Your task to perform on an android device: Add razer kraken to the cart on ebay.com, then select checkout. Image 0: 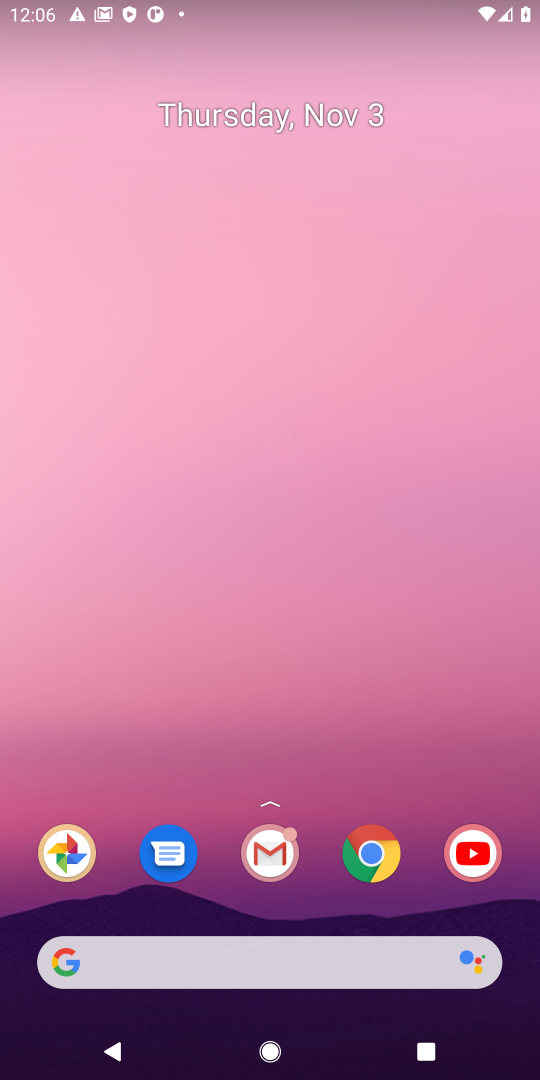
Step 0: click (371, 858)
Your task to perform on an android device: Add razer kraken to the cart on ebay.com, then select checkout. Image 1: 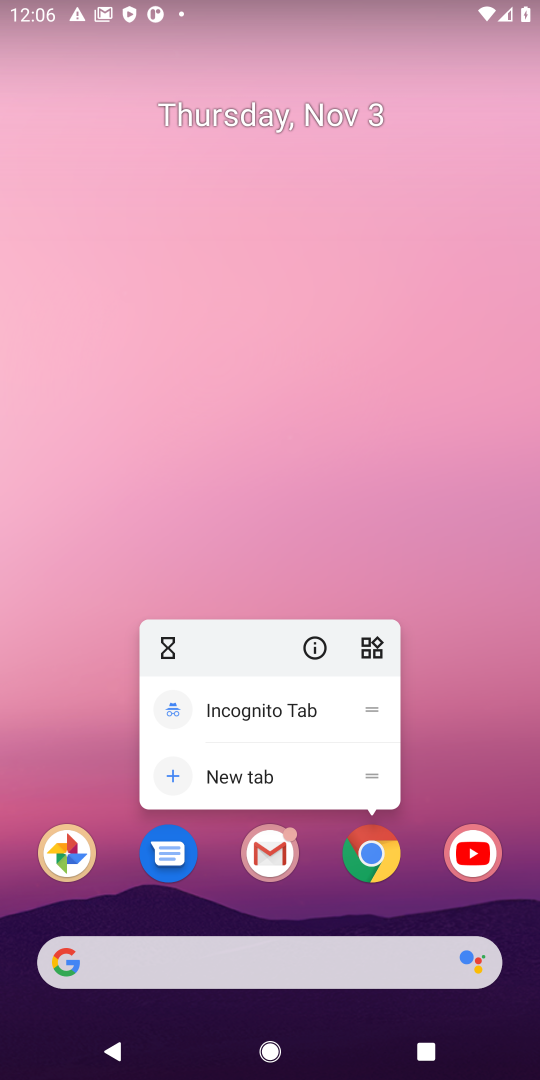
Step 1: click (371, 860)
Your task to perform on an android device: Add razer kraken to the cart on ebay.com, then select checkout. Image 2: 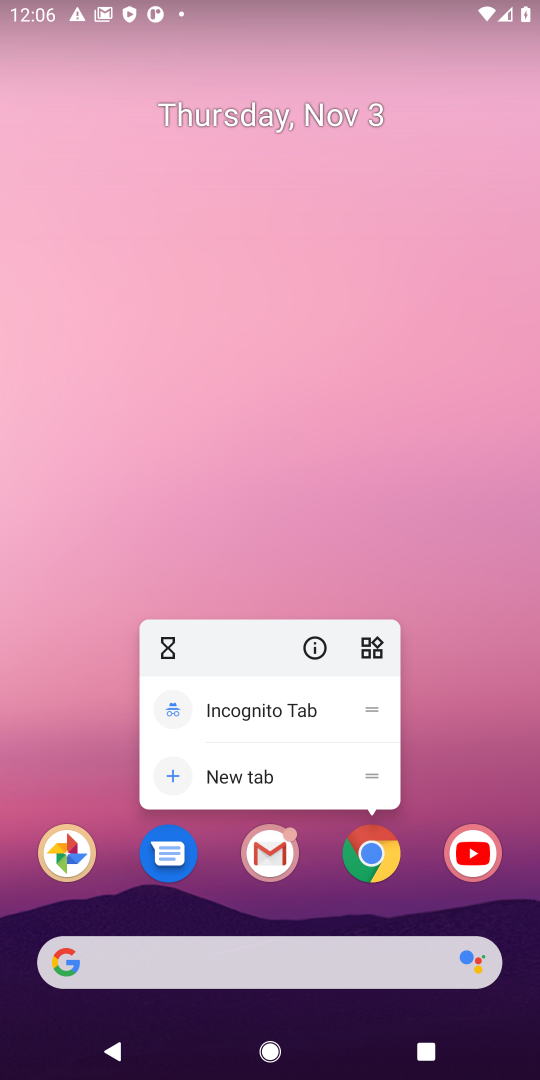
Step 2: click (366, 858)
Your task to perform on an android device: Add razer kraken to the cart on ebay.com, then select checkout. Image 3: 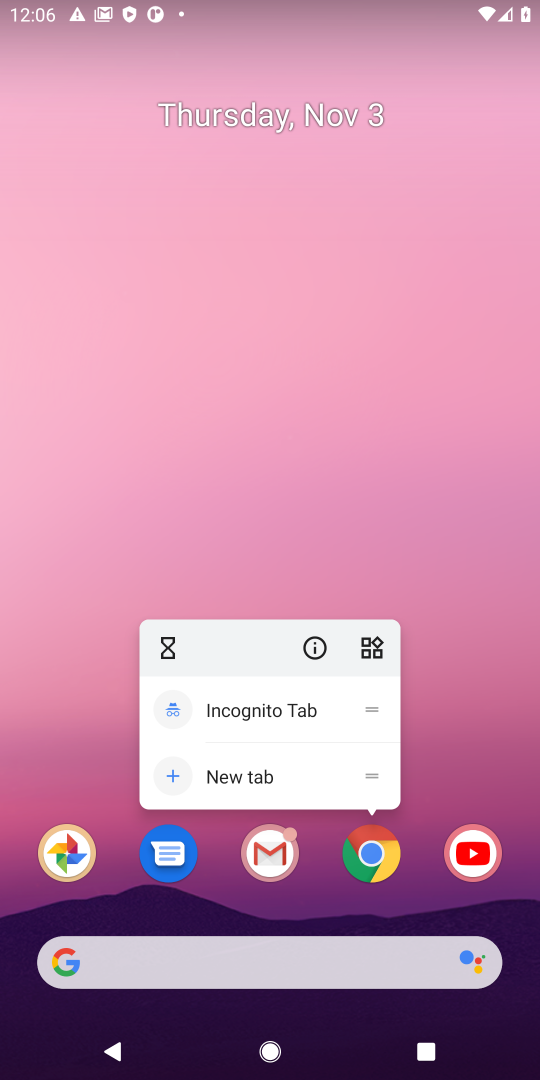
Step 3: click (368, 852)
Your task to perform on an android device: Add razer kraken to the cart on ebay.com, then select checkout. Image 4: 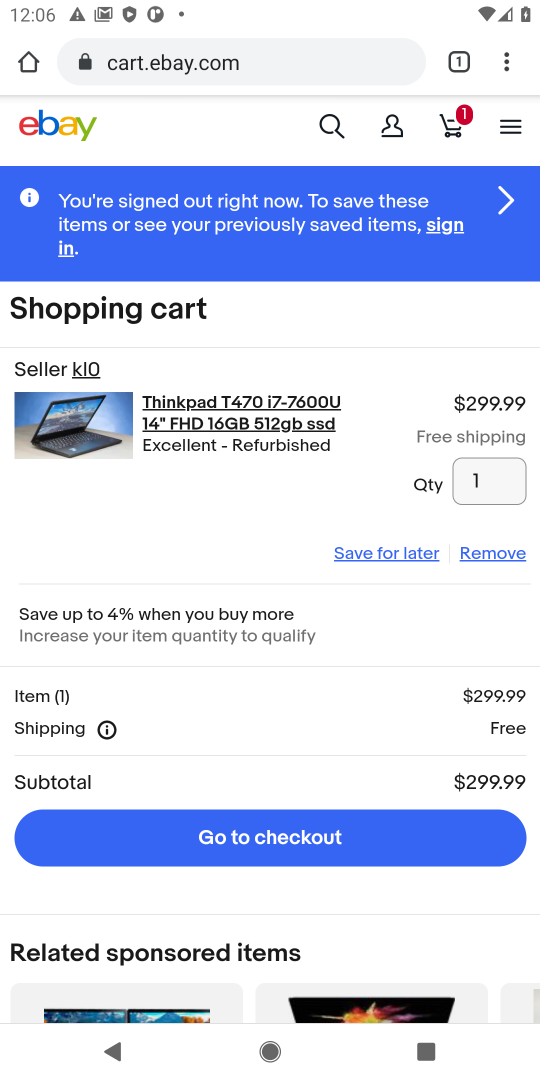
Step 4: click (323, 125)
Your task to perform on an android device: Add razer kraken to the cart on ebay.com, then select checkout. Image 5: 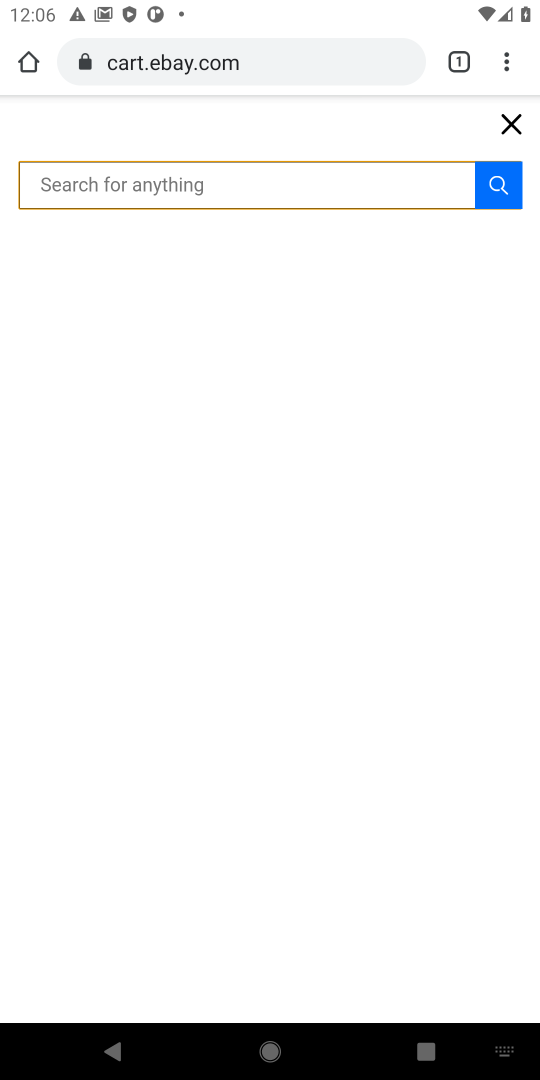
Step 5: click (150, 173)
Your task to perform on an android device: Add razer kraken to the cart on ebay.com, then select checkout. Image 6: 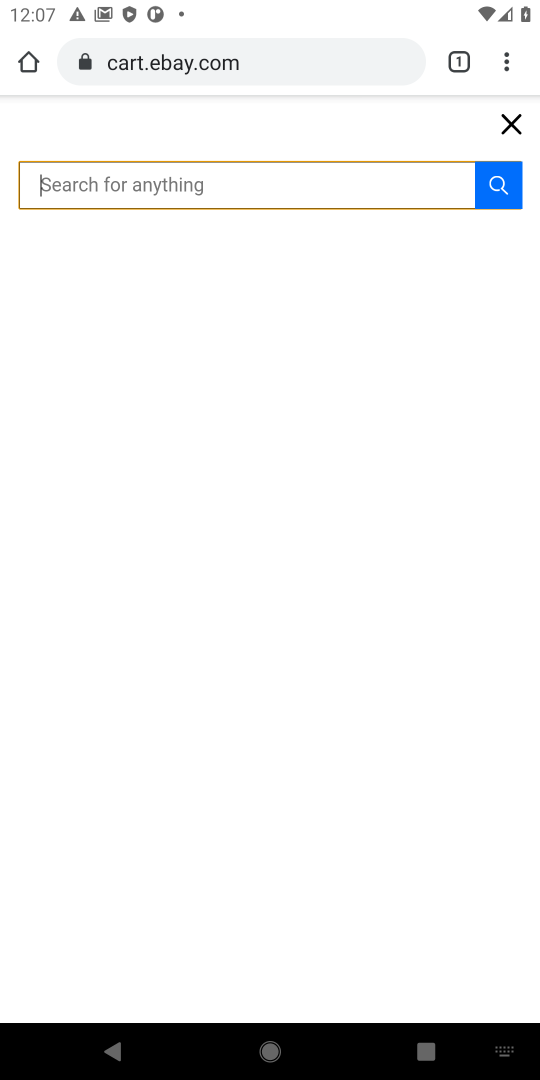
Step 6: type "razer kraken"
Your task to perform on an android device: Add razer kraken to the cart on ebay.com, then select checkout. Image 7: 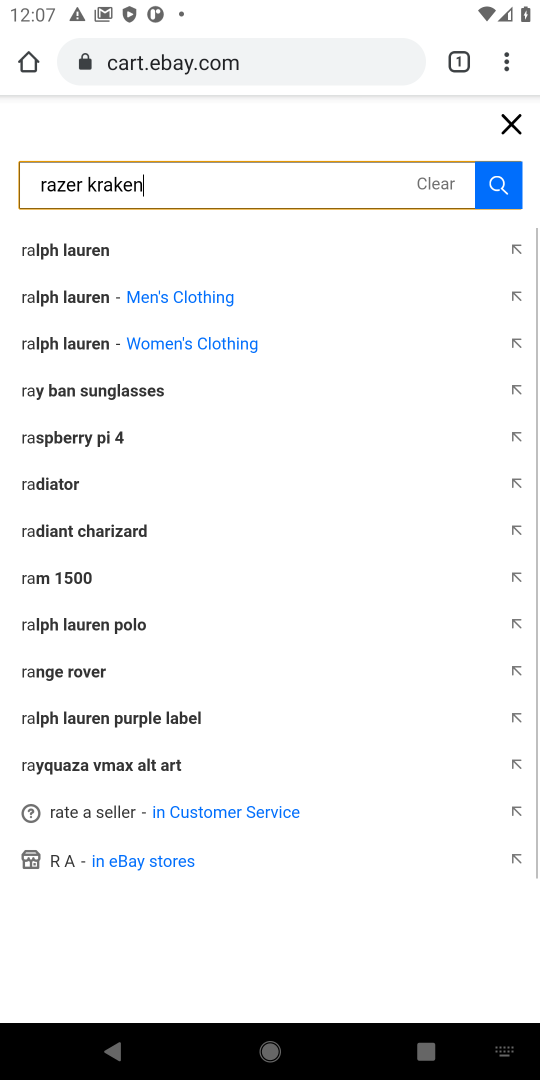
Step 7: press enter
Your task to perform on an android device: Add razer kraken to the cart on ebay.com, then select checkout. Image 8: 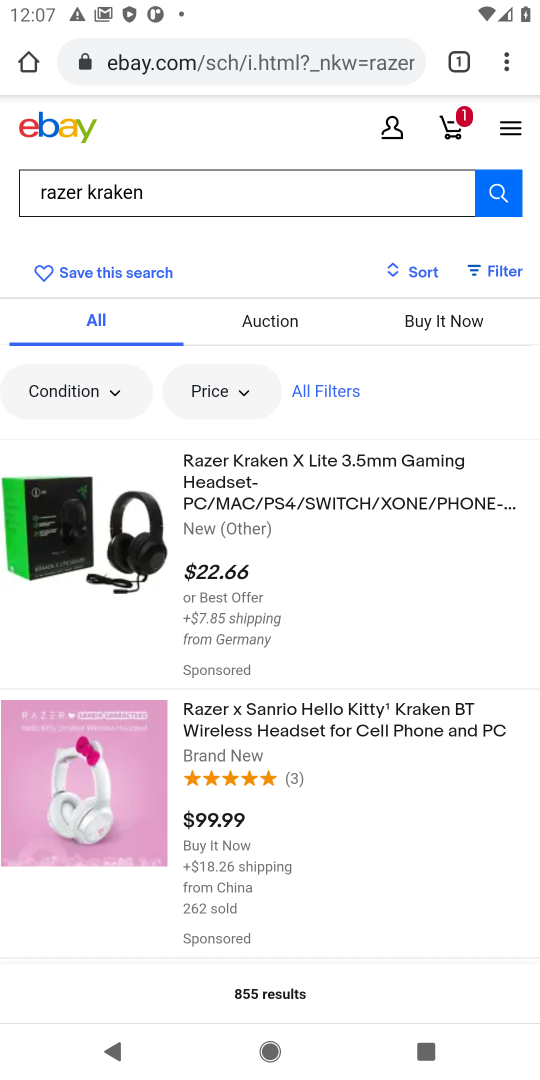
Step 8: click (320, 544)
Your task to perform on an android device: Add razer kraken to the cart on ebay.com, then select checkout. Image 9: 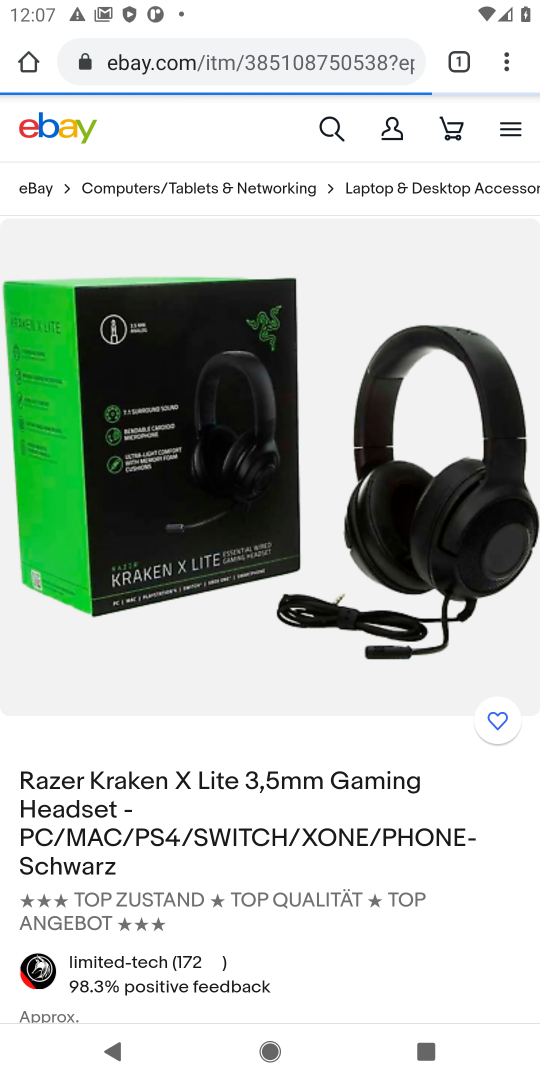
Step 9: drag from (156, 878) to (258, 345)
Your task to perform on an android device: Add razer kraken to the cart on ebay.com, then select checkout. Image 10: 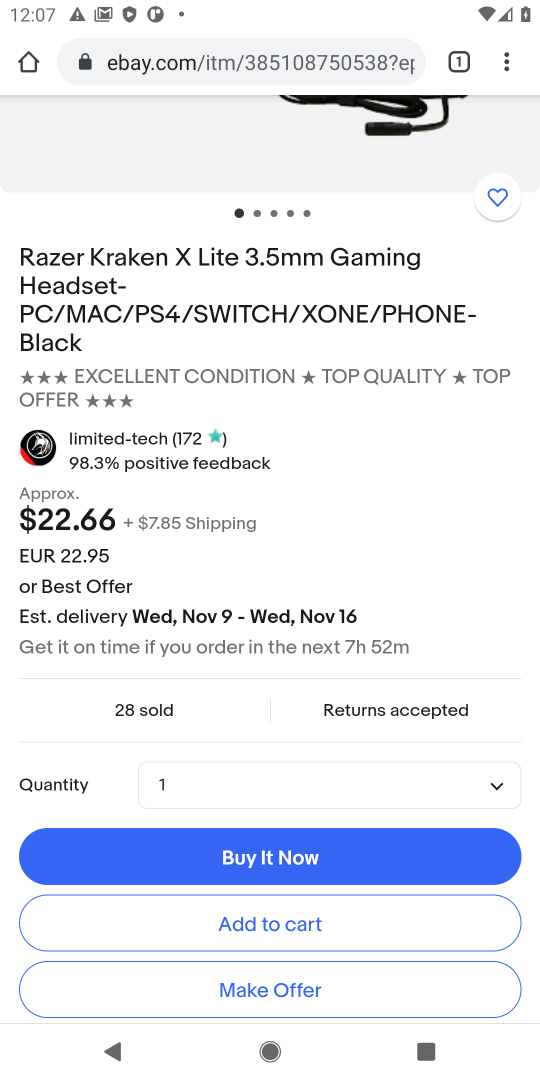
Step 10: drag from (287, 865) to (332, 749)
Your task to perform on an android device: Add razer kraken to the cart on ebay.com, then select checkout. Image 11: 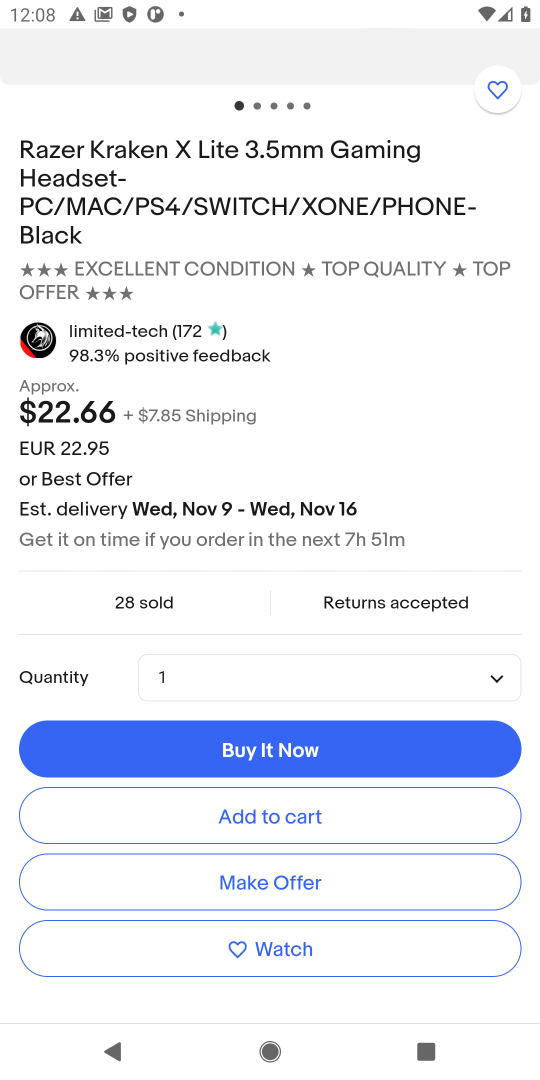
Step 11: click (257, 818)
Your task to perform on an android device: Add razer kraken to the cart on ebay.com, then select checkout. Image 12: 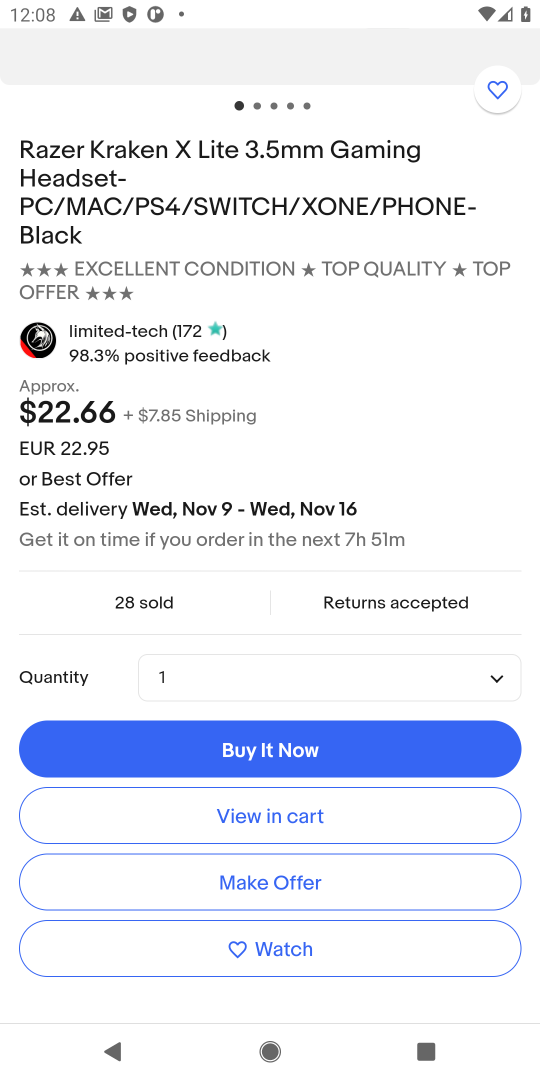
Step 12: task complete